Your task to perform on an android device: empty trash in the gmail app Image 0: 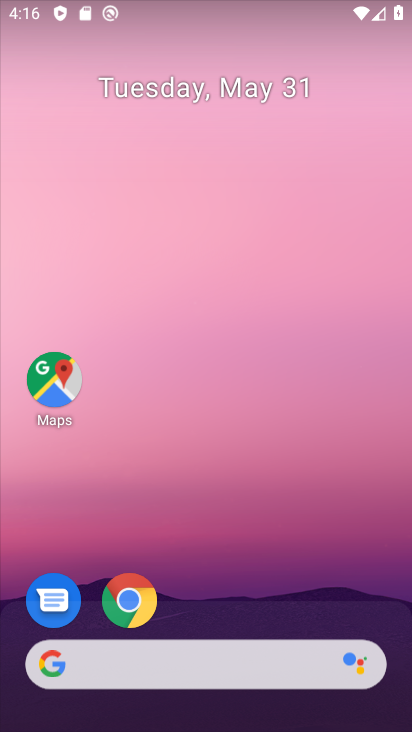
Step 0: drag from (170, 638) to (285, 139)
Your task to perform on an android device: empty trash in the gmail app Image 1: 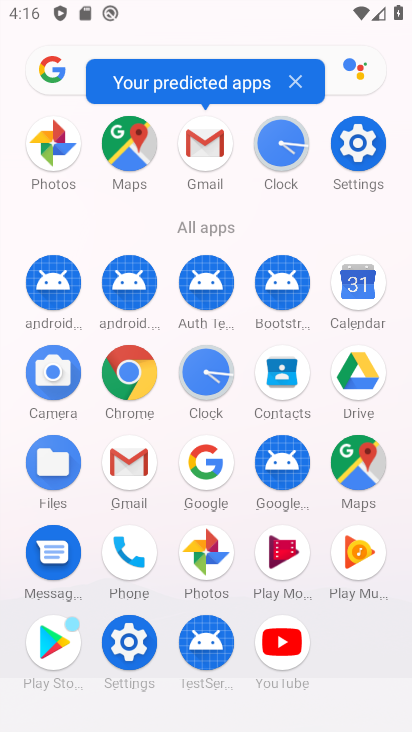
Step 1: click (135, 458)
Your task to perform on an android device: empty trash in the gmail app Image 2: 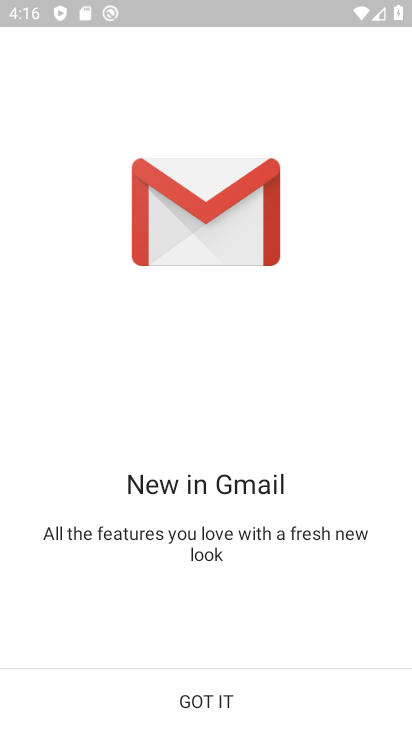
Step 2: click (215, 695)
Your task to perform on an android device: empty trash in the gmail app Image 3: 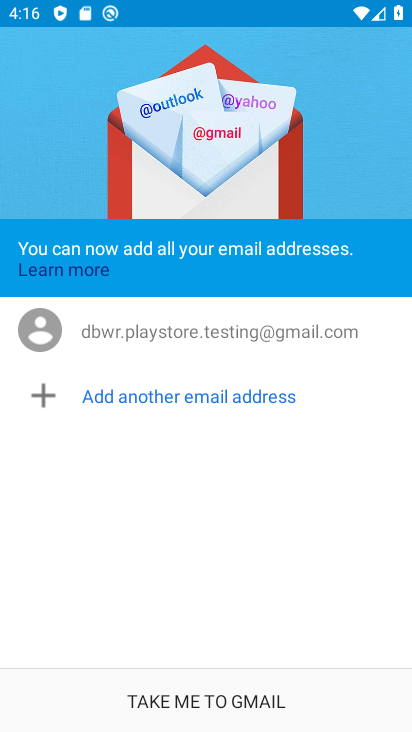
Step 3: click (238, 715)
Your task to perform on an android device: empty trash in the gmail app Image 4: 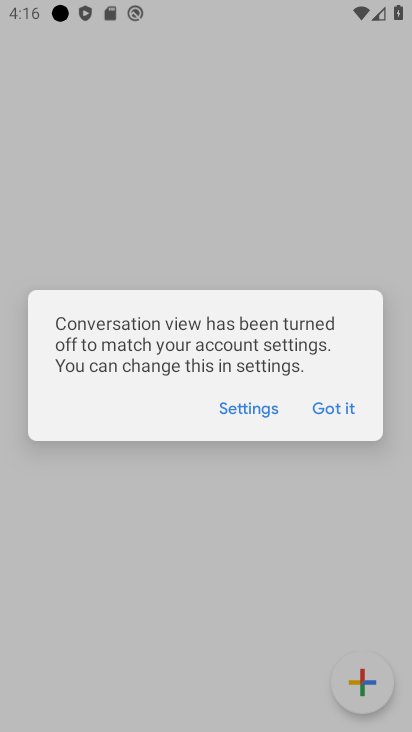
Step 4: click (243, 715)
Your task to perform on an android device: empty trash in the gmail app Image 5: 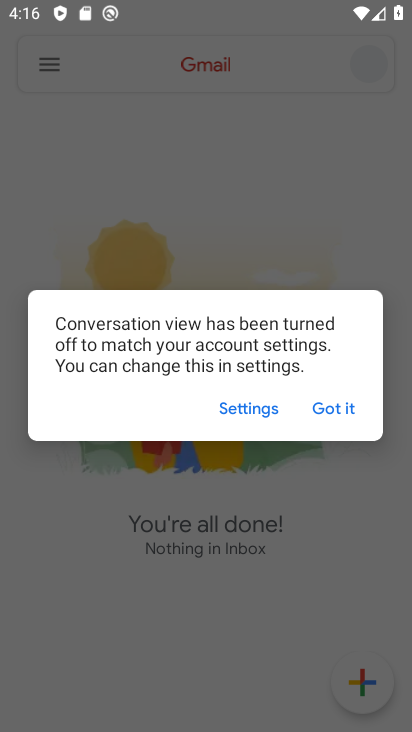
Step 5: click (338, 413)
Your task to perform on an android device: empty trash in the gmail app Image 6: 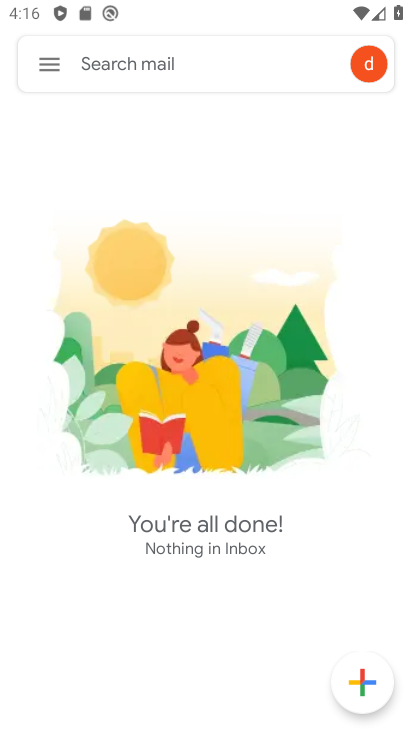
Step 6: click (40, 67)
Your task to perform on an android device: empty trash in the gmail app Image 7: 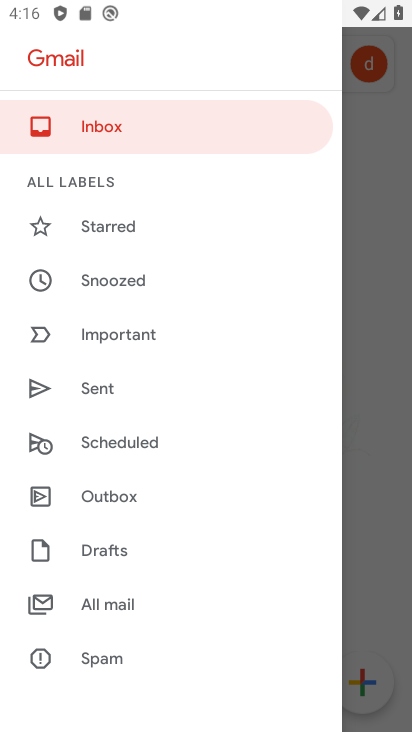
Step 7: drag from (146, 572) to (185, 376)
Your task to perform on an android device: empty trash in the gmail app Image 8: 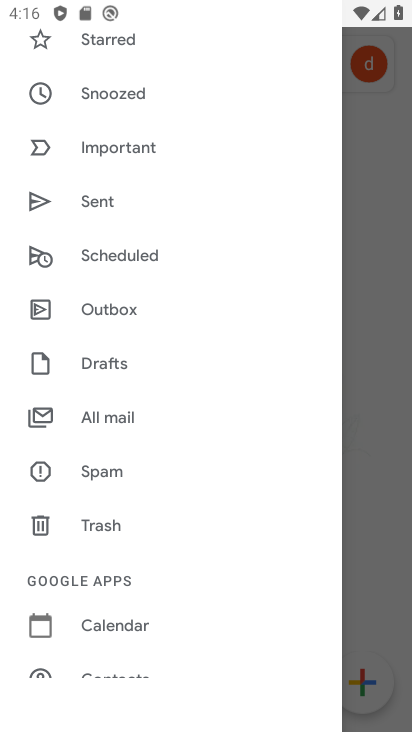
Step 8: click (154, 524)
Your task to perform on an android device: empty trash in the gmail app Image 9: 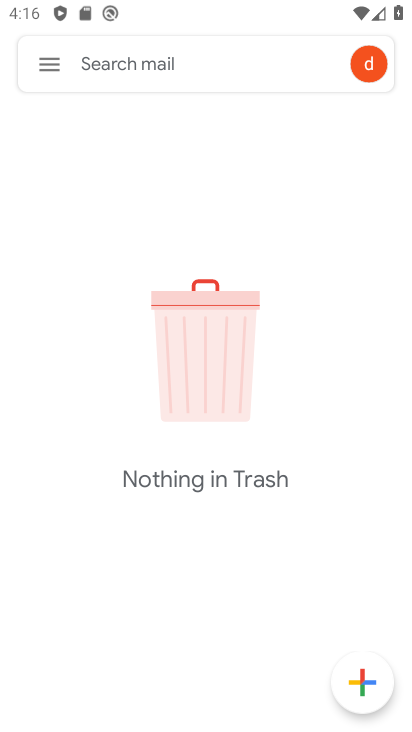
Step 9: task complete